Your task to perform on an android device: Go to eBay Image 0: 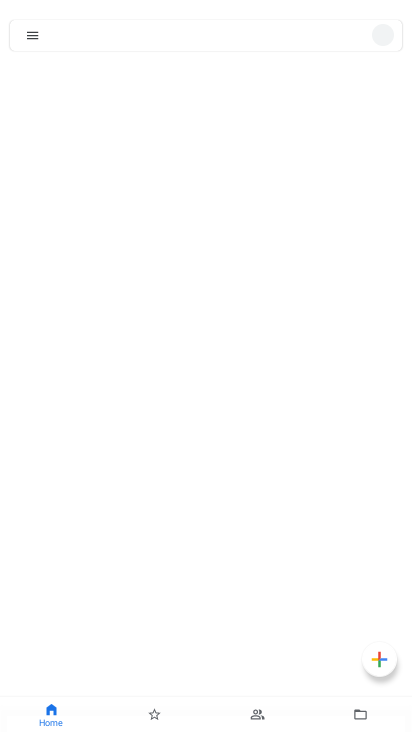
Step 0: press home button
Your task to perform on an android device: Go to eBay Image 1: 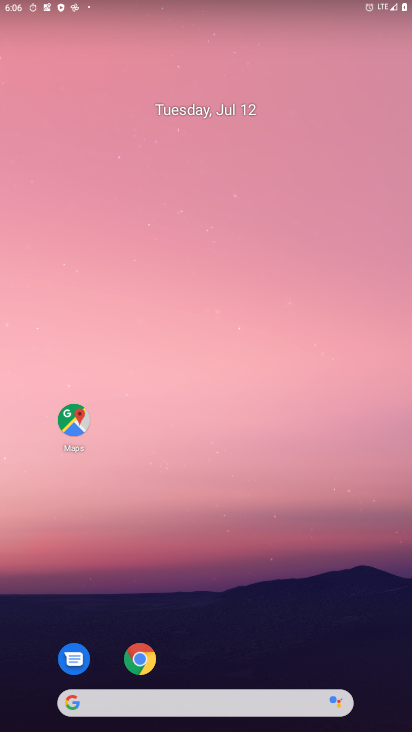
Step 1: click (139, 661)
Your task to perform on an android device: Go to eBay Image 2: 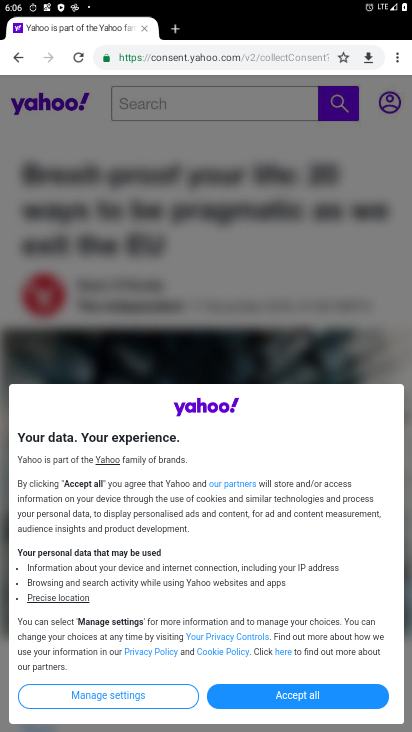
Step 2: click (231, 55)
Your task to perform on an android device: Go to eBay Image 3: 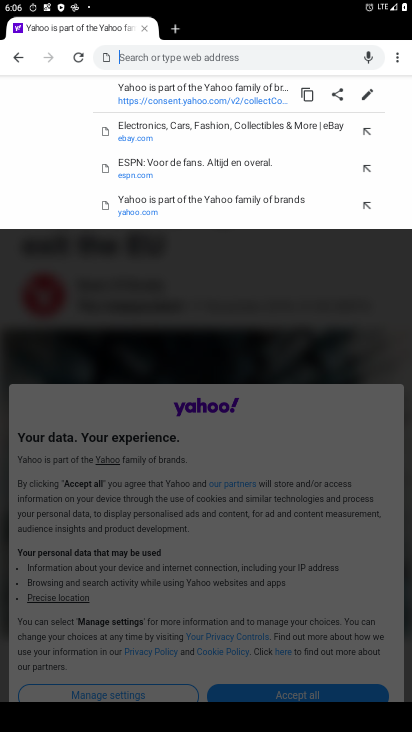
Step 3: type "eBay"
Your task to perform on an android device: Go to eBay Image 4: 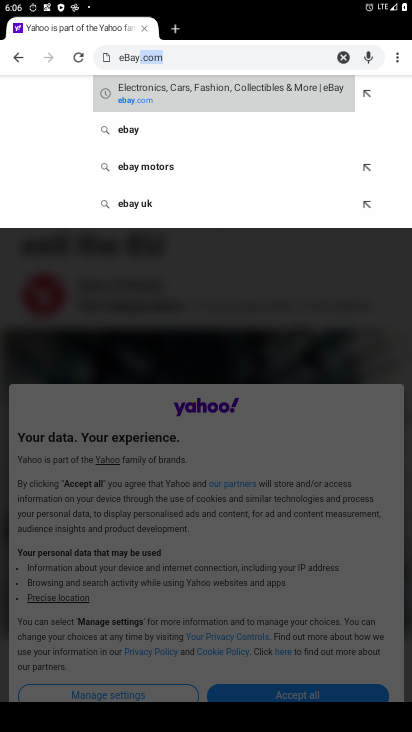
Step 4: click (146, 89)
Your task to perform on an android device: Go to eBay Image 5: 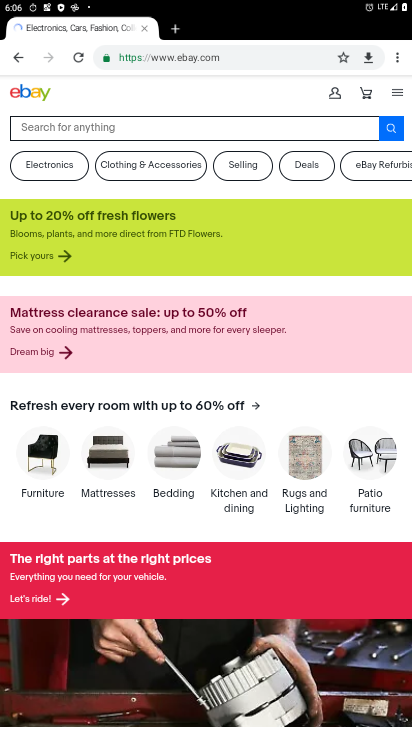
Step 5: task complete